Your task to perform on an android device: change keyboard looks Image 0: 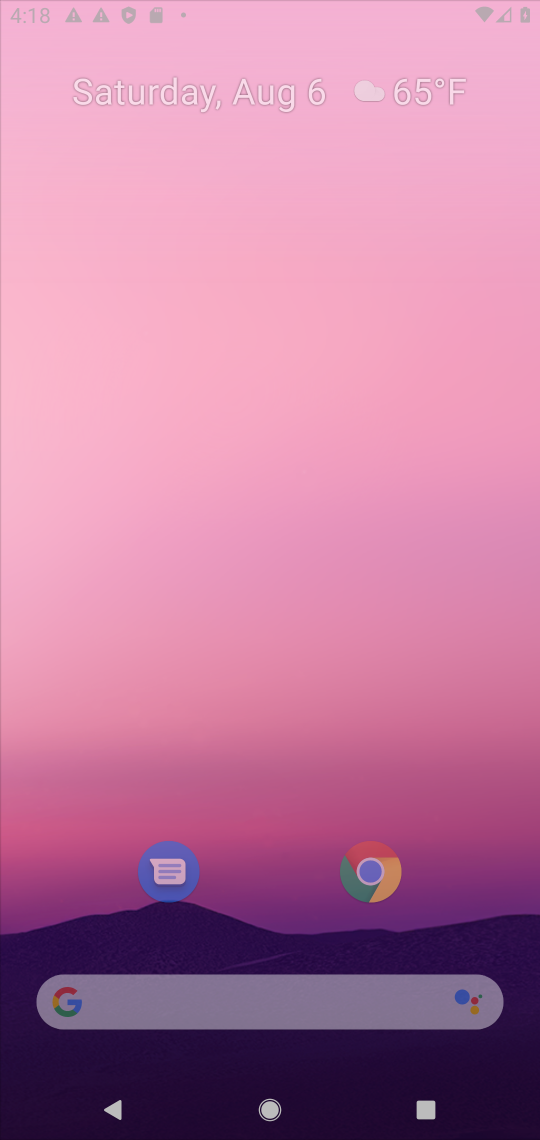
Step 0: press home button
Your task to perform on an android device: change keyboard looks Image 1: 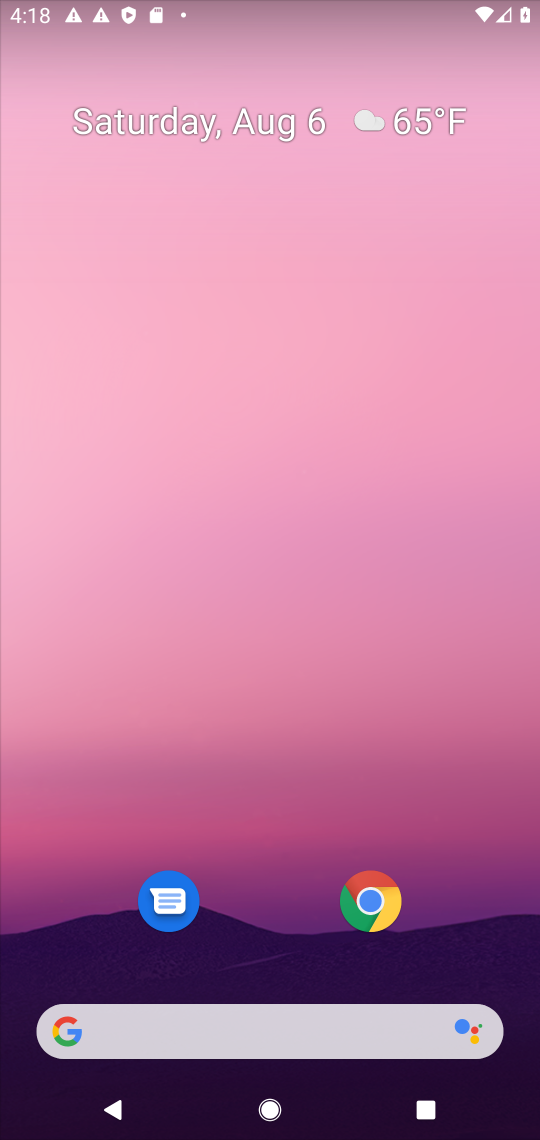
Step 1: press home button
Your task to perform on an android device: change keyboard looks Image 2: 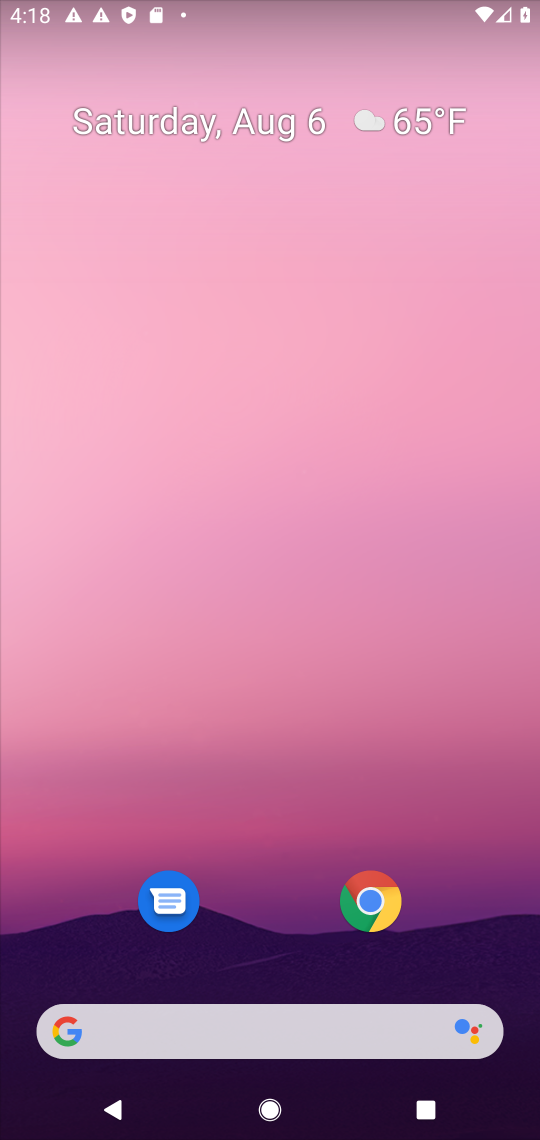
Step 2: press home button
Your task to perform on an android device: change keyboard looks Image 3: 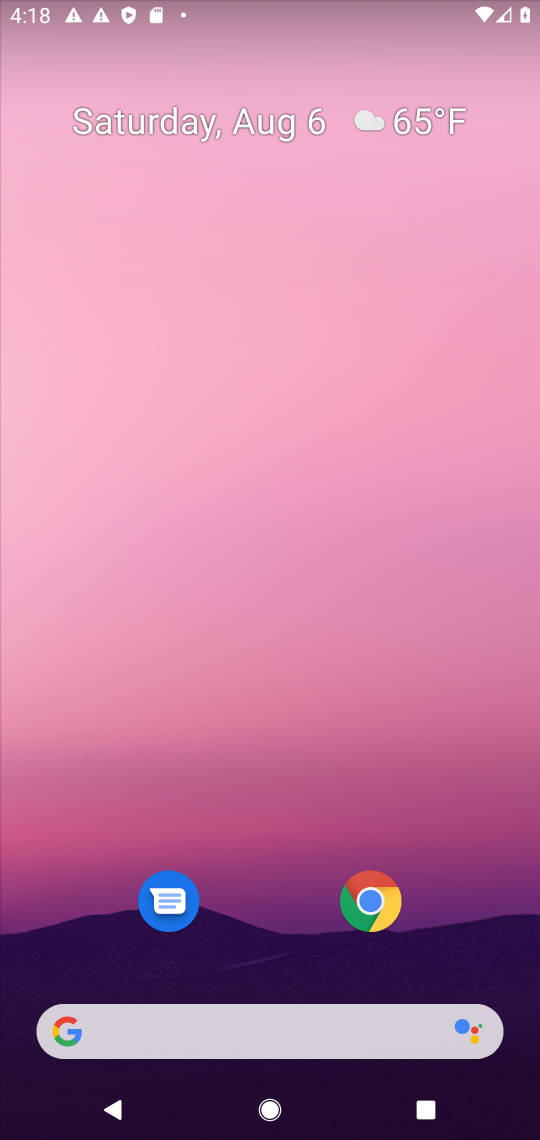
Step 3: drag from (315, 846) to (327, 137)
Your task to perform on an android device: change keyboard looks Image 4: 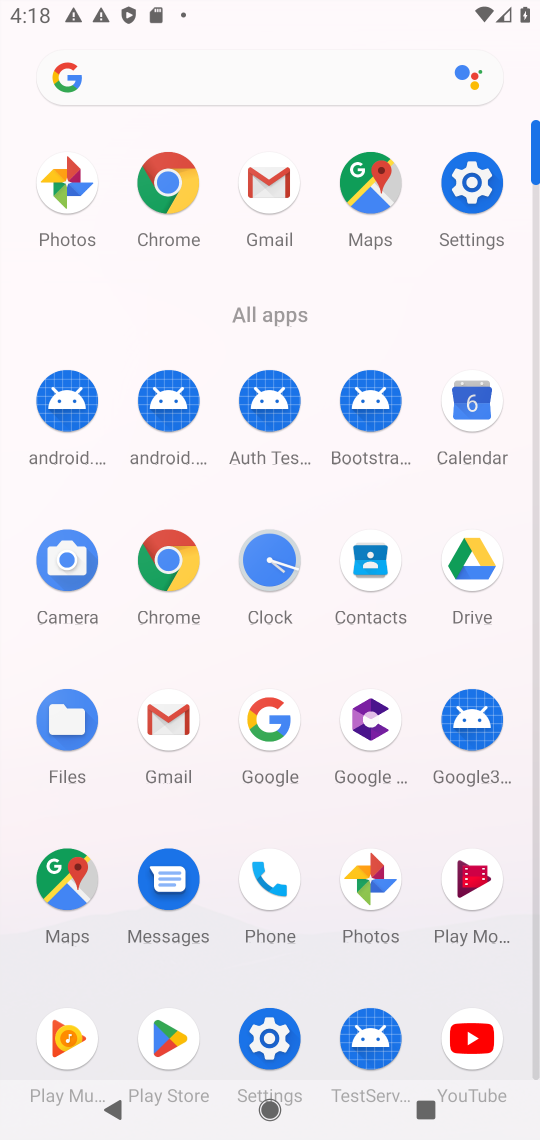
Step 4: click (492, 170)
Your task to perform on an android device: change keyboard looks Image 5: 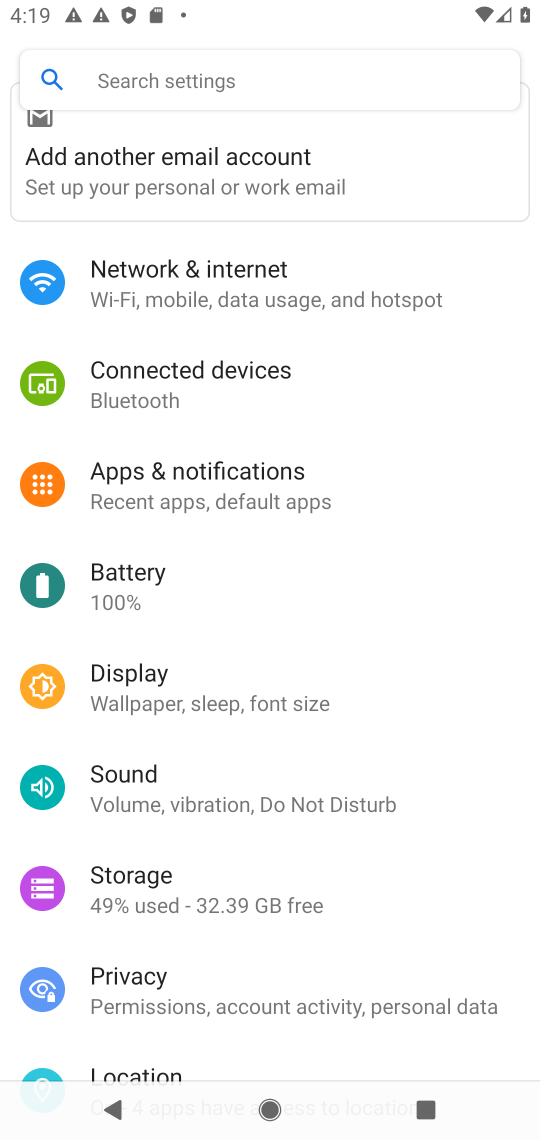
Step 5: drag from (324, 692) to (289, 137)
Your task to perform on an android device: change keyboard looks Image 6: 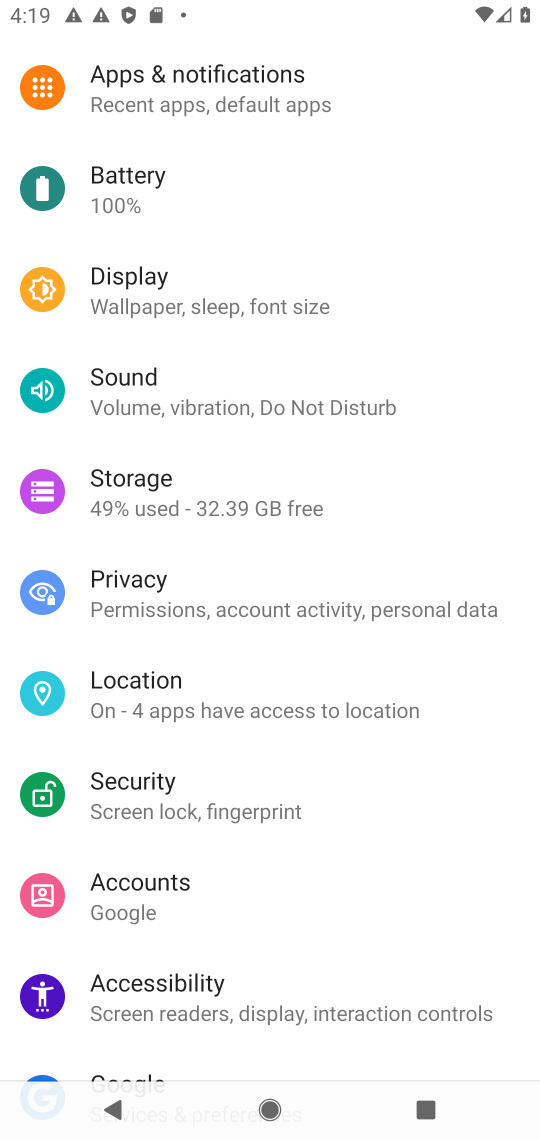
Step 6: drag from (199, 1054) to (298, 324)
Your task to perform on an android device: change keyboard looks Image 7: 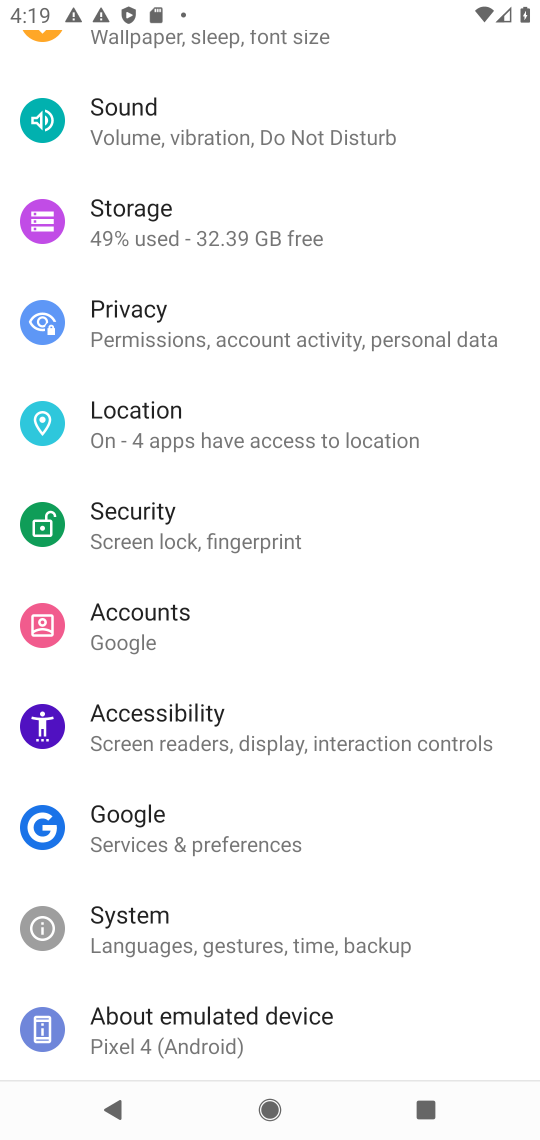
Step 7: click (312, 1023)
Your task to perform on an android device: change keyboard looks Image 8: 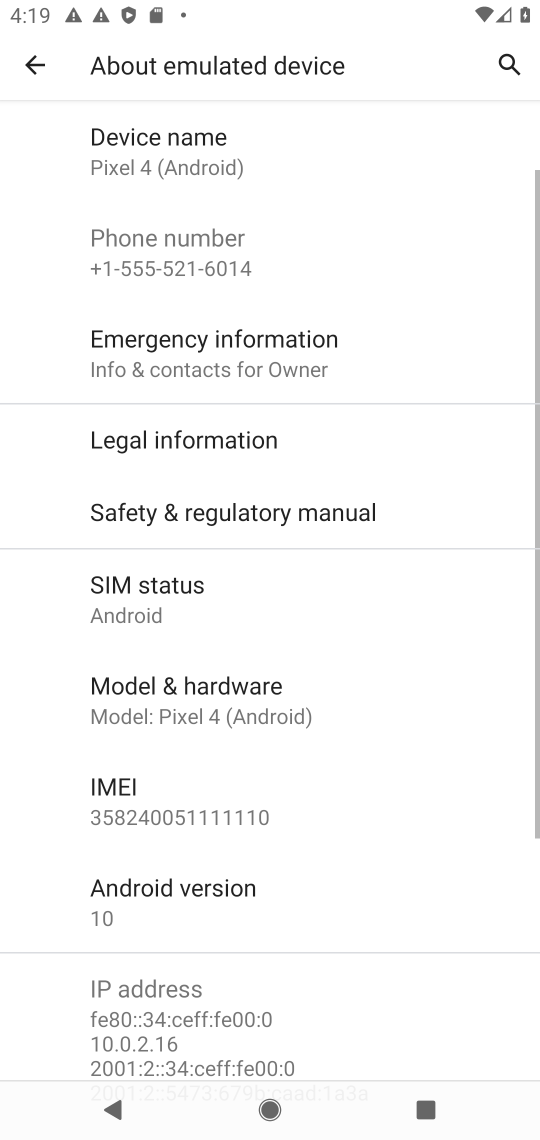
Step 8: click (22, 67)
Your task to perform on an android device: change keyboard looks Image 9: 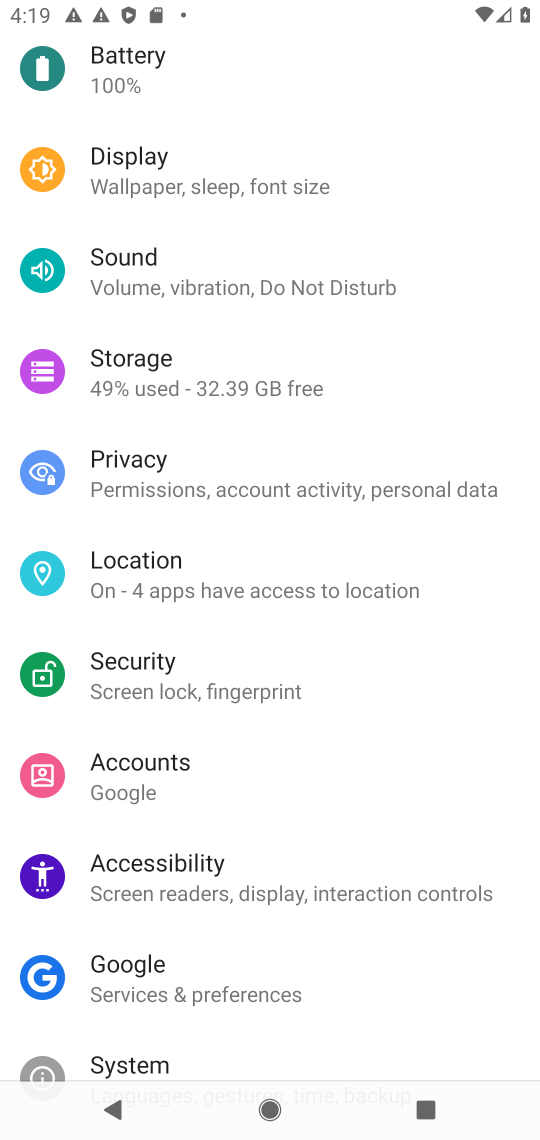
Step 9: drag from (196, 954) to (203, 553)
Your task to perform on an android device: change keyboard looks Image 10: 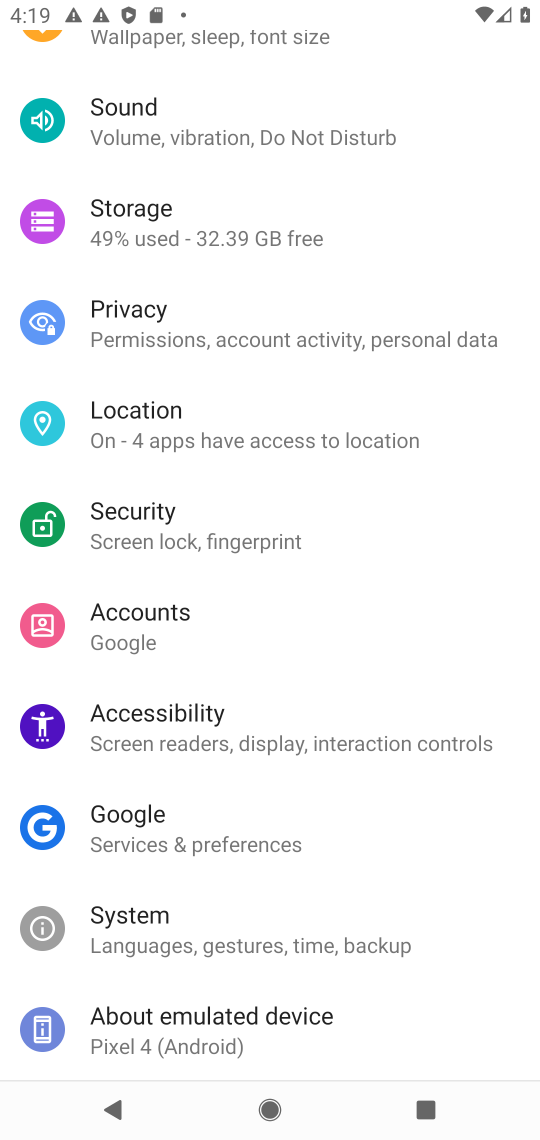
Step 10: click (136, 925)
Your task to perform on an android device: change keyboard looks Image 11: 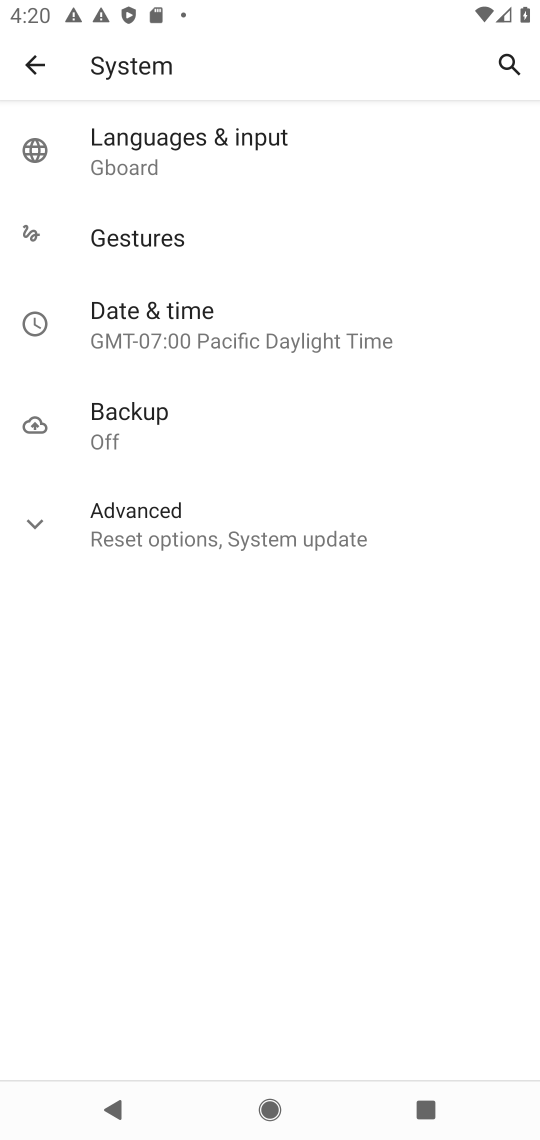
Step 11: click (162, 173)
Your task to perform on an android device: change keyboard looks Image 12: 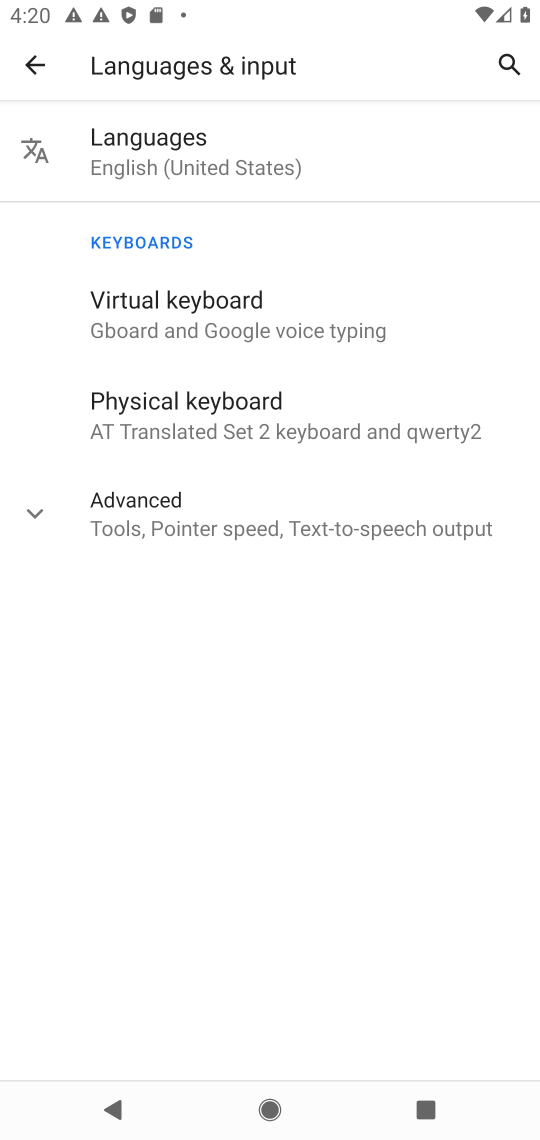
Step 12: click (156, 333)
Your task to perform on an android device: change keyboard looks Image 13: 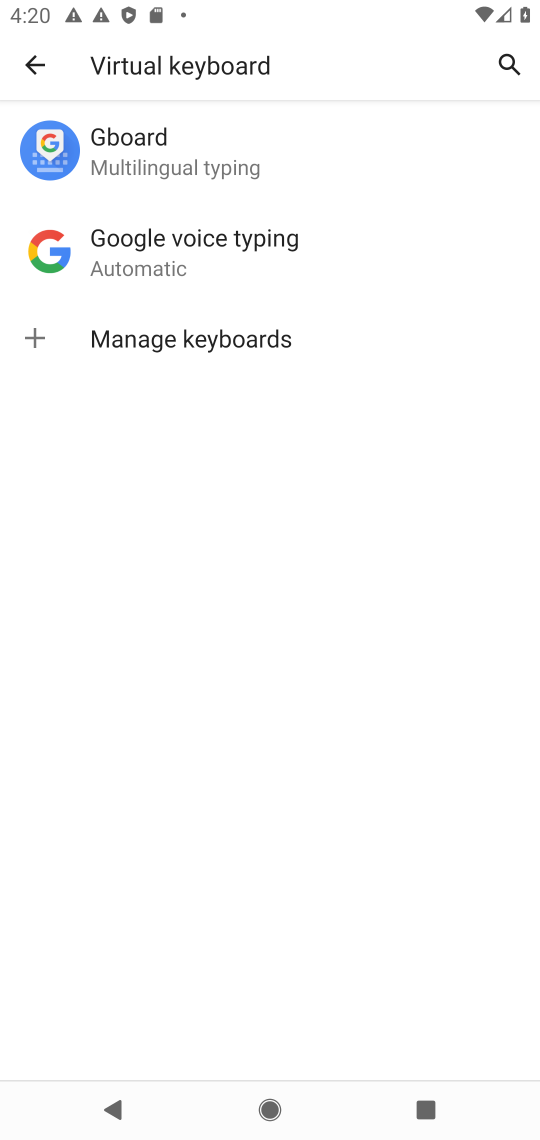
Step 13: click (135, 158)
Your task to perform on an android device: change keyboard looks Image 14: 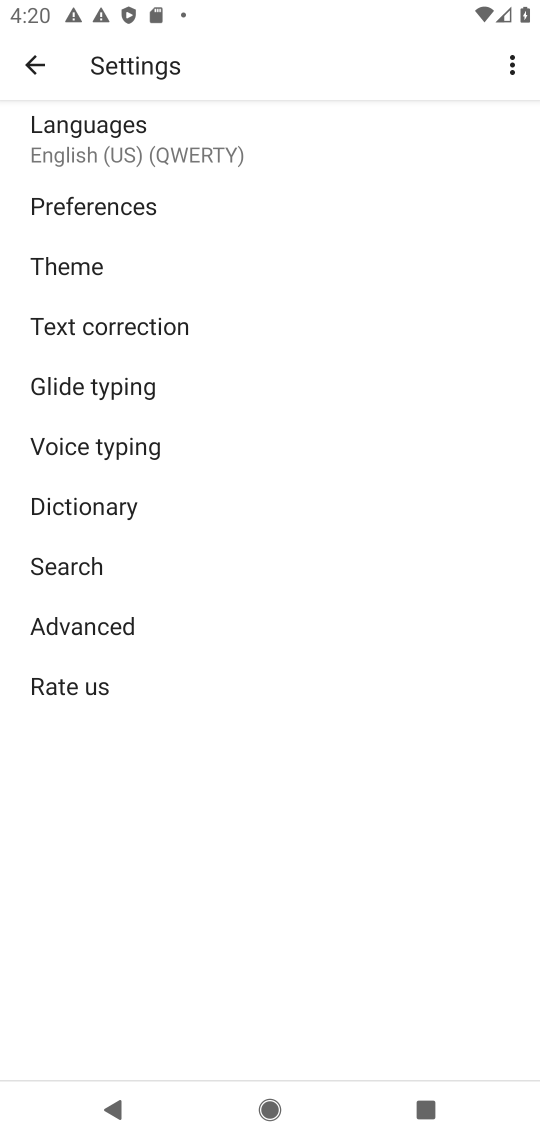
Step 14: click (59, 256)
Your task to perform on an android device: change keyboard looks Image 15: 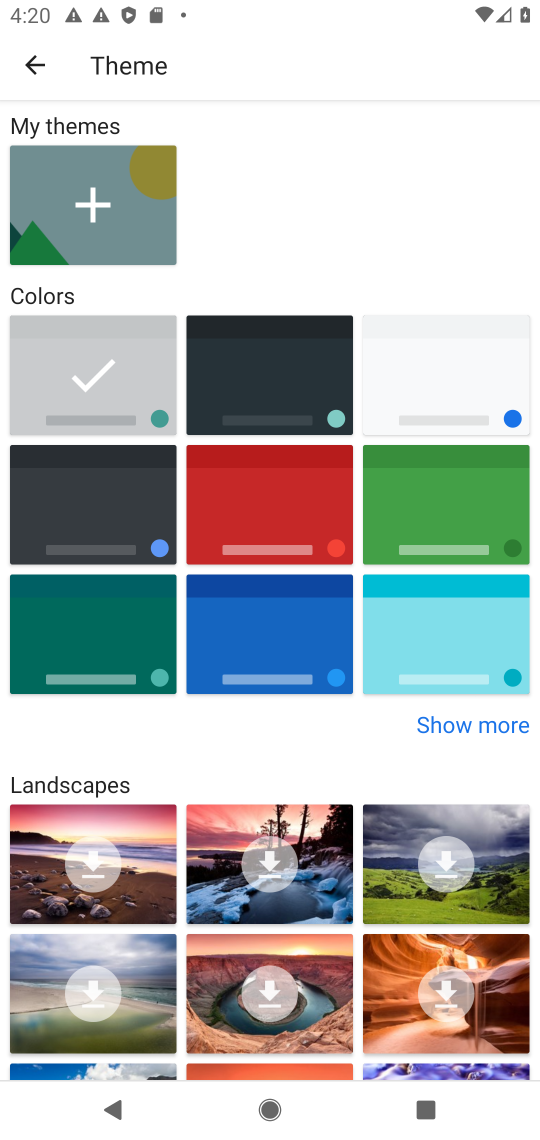
Step 15: click (374, 661)
Your task to perform on an android device: change keyboard looks Image 16: 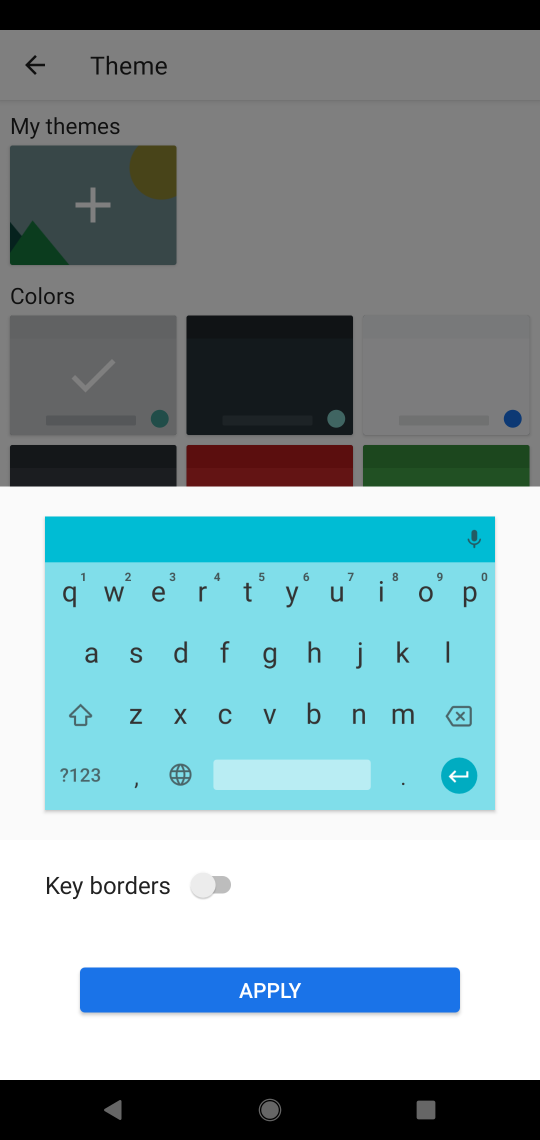
Step 16: click (256, 995)
Your task to perform on an android device: change keyboard looks Image 17: 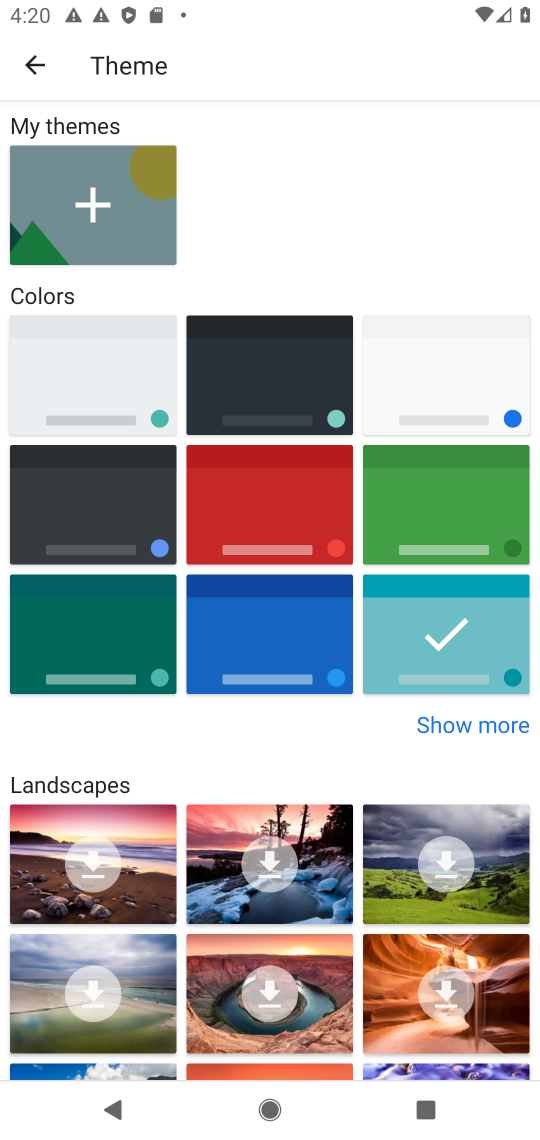
Step 17: task complete